Your task to perform on an android device: What's the weather going to be this weekend? Image 0: 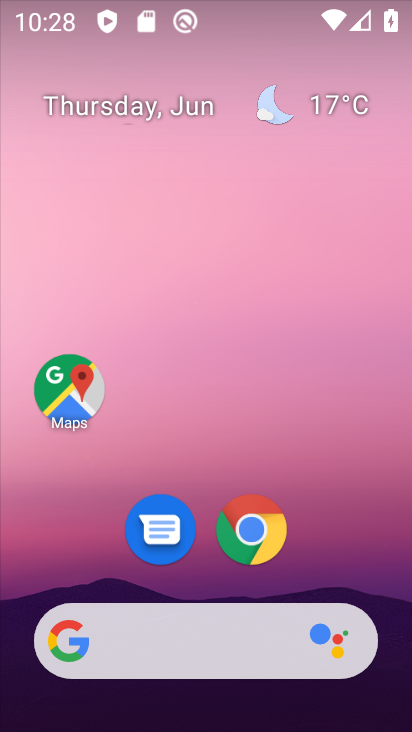
Step 0: click (190, 652)
Your task to perform on an android device: What's the weather going to be this weekend? Image 1: 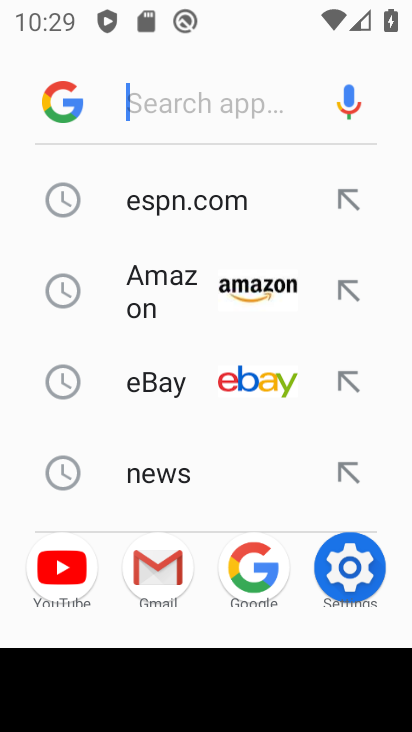
Step 1: type "what's the weather going to be this weekend"
Your task to perform on an android device: What's the weather going to be this weekend? Image 2: 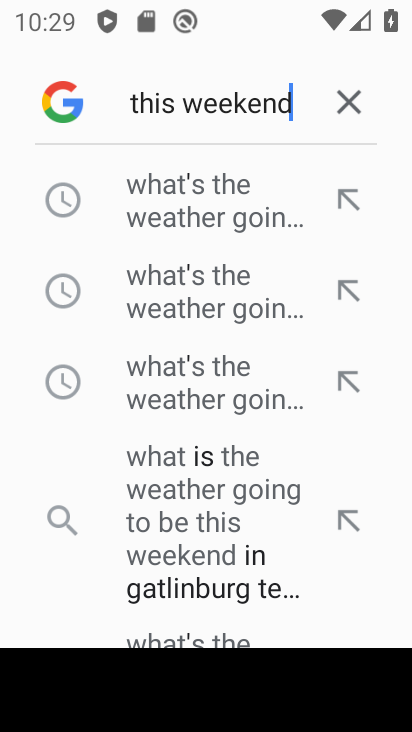
Step 2: click (205, 174)
Your task to perform on an android device: What's the weather going to be this weekend? Image 3: 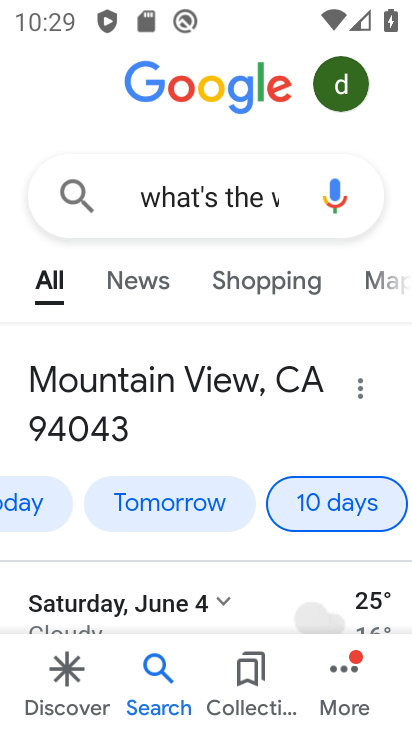
Step 3: task complete